Your task to perform on an android device: turn off location history Image 0: 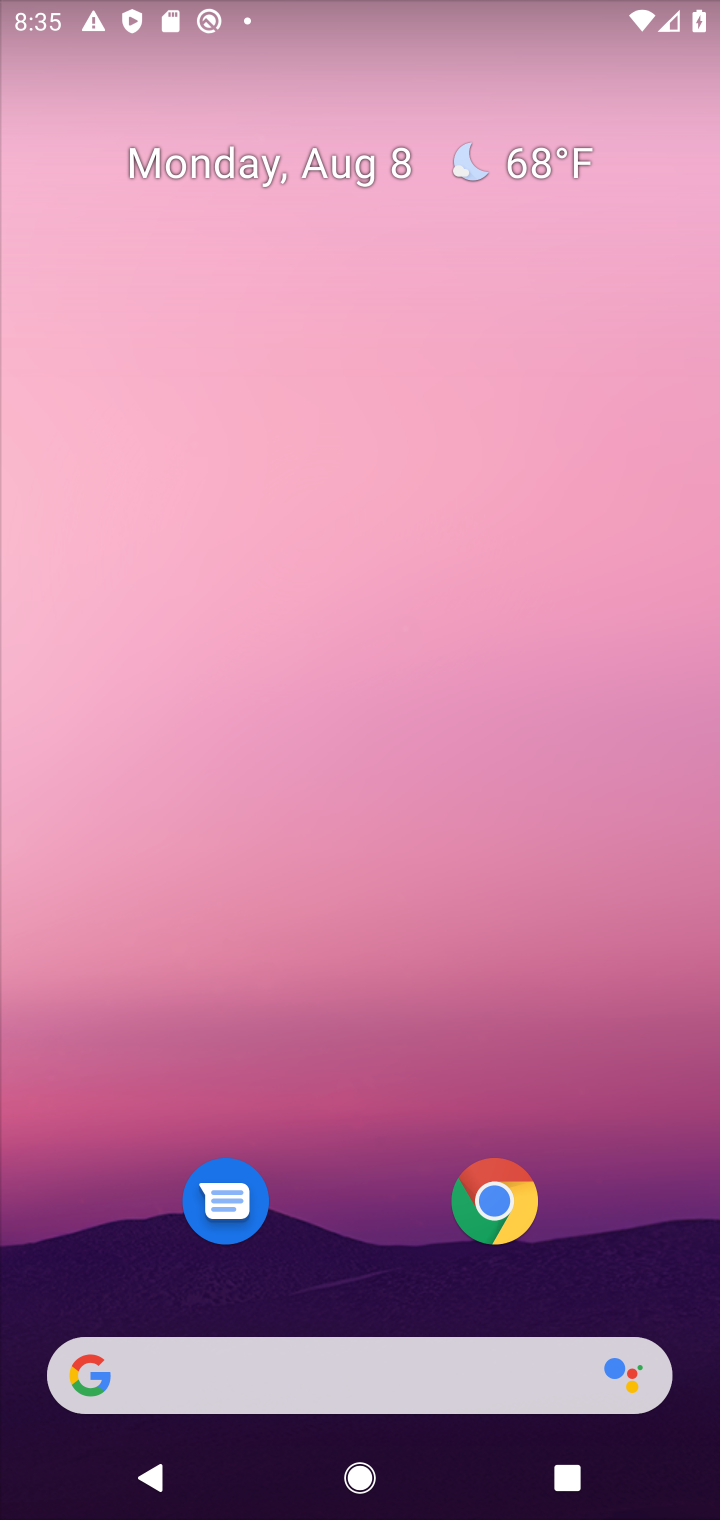
Step 0: press home button
Your task to perform on an android device: turn off location history Image 1: 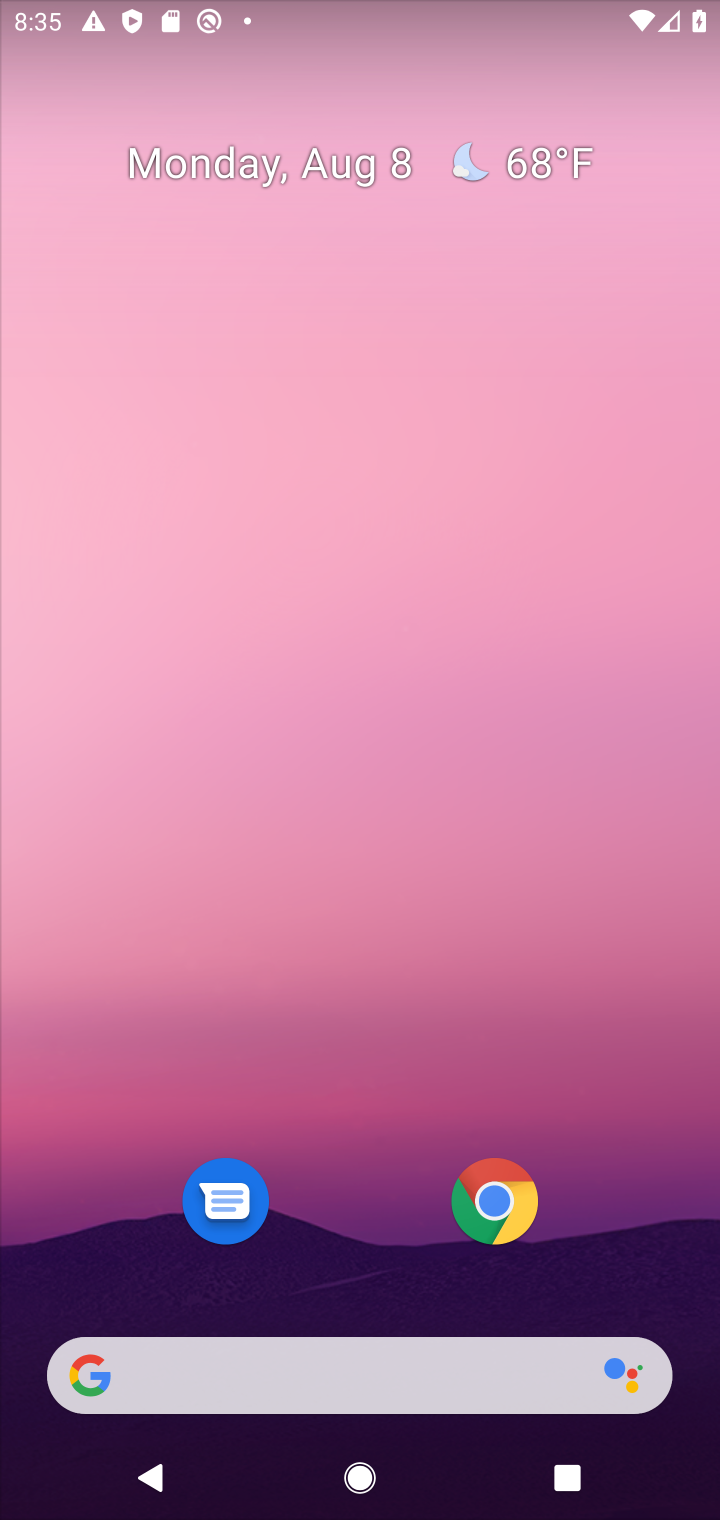
Step 1: drag from (606, 1237) to (610, 389)
Your task to perform on an android device: turn off location history Image 2: 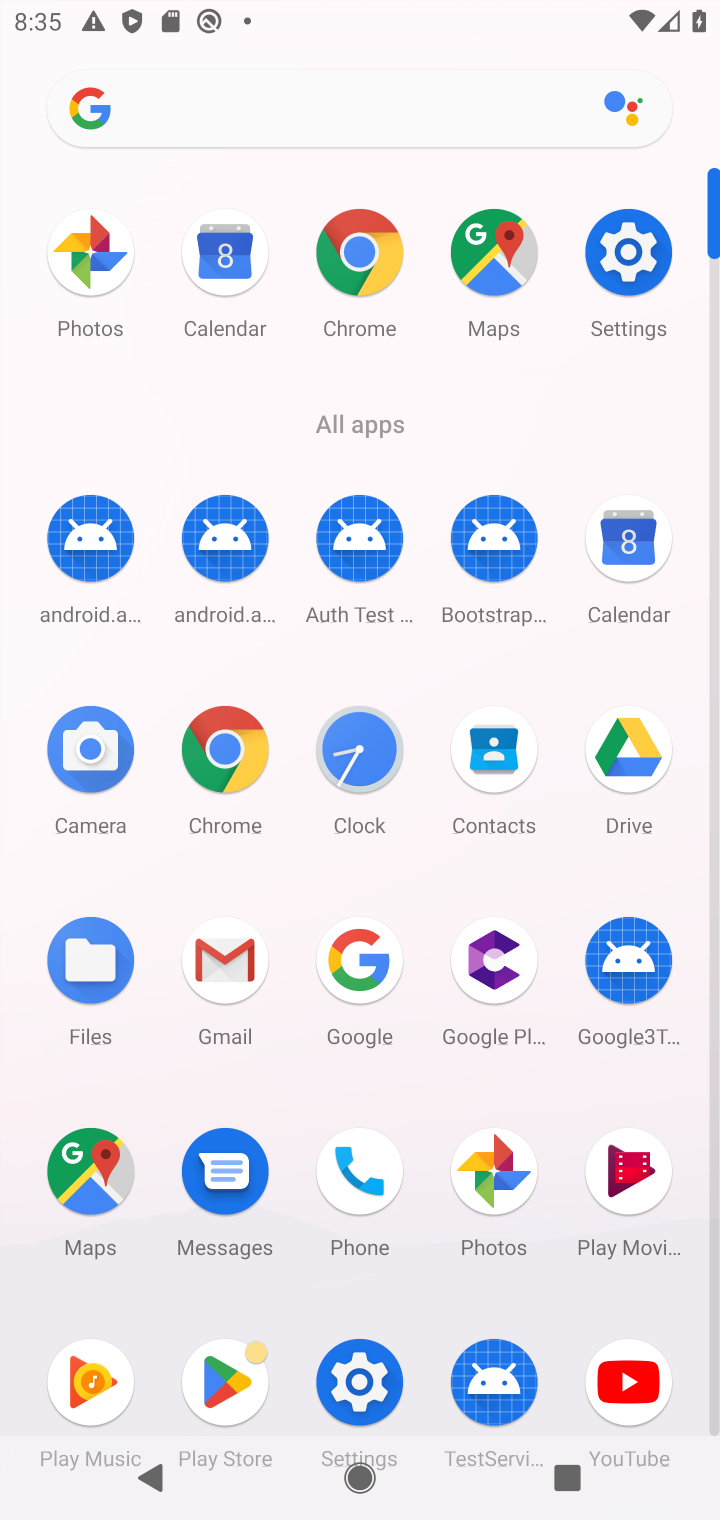
Step 2: click (625, 267)
Your task to perform on an android device: turn off location history Image 3: 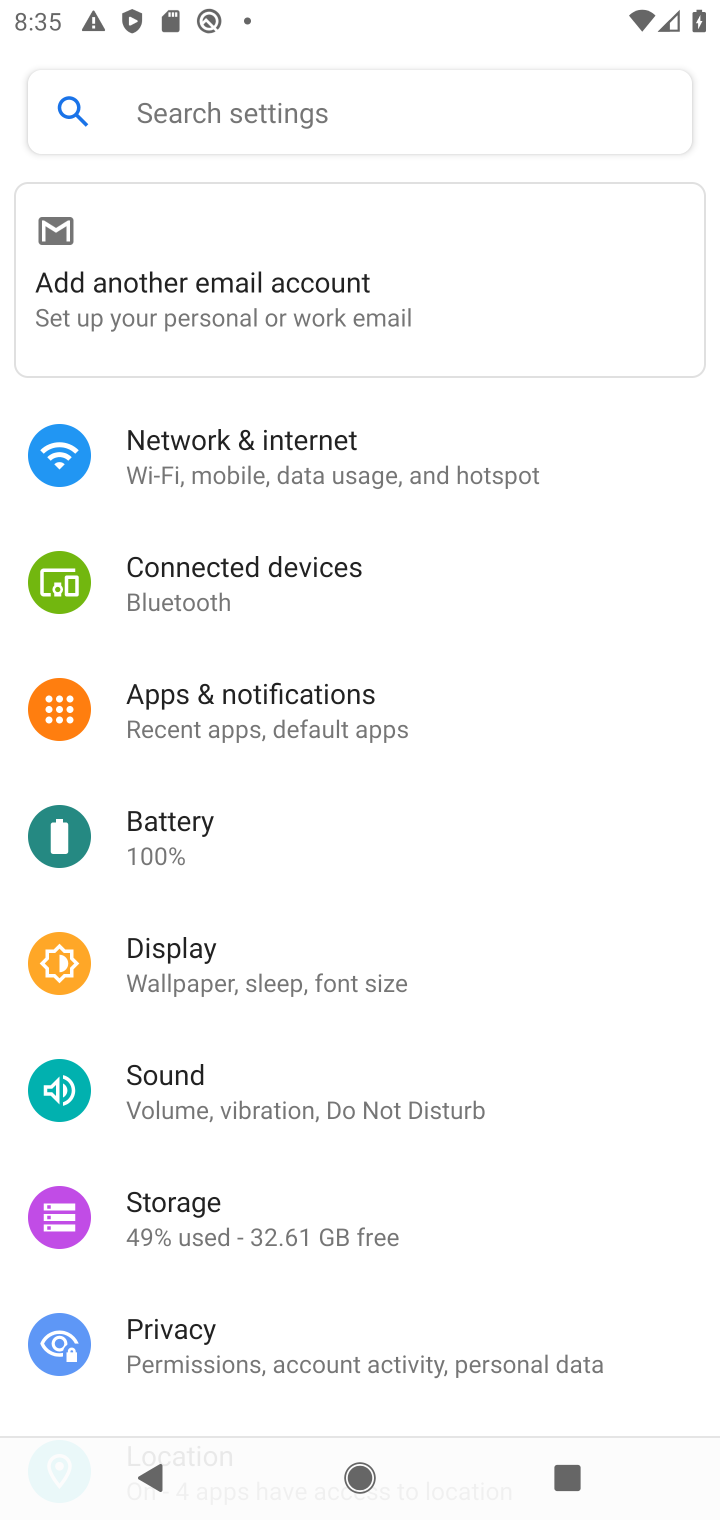
Step 3: drag from (599, 943) to (620, 667)
Your task to perform on an android device: turn off location history Image 4: 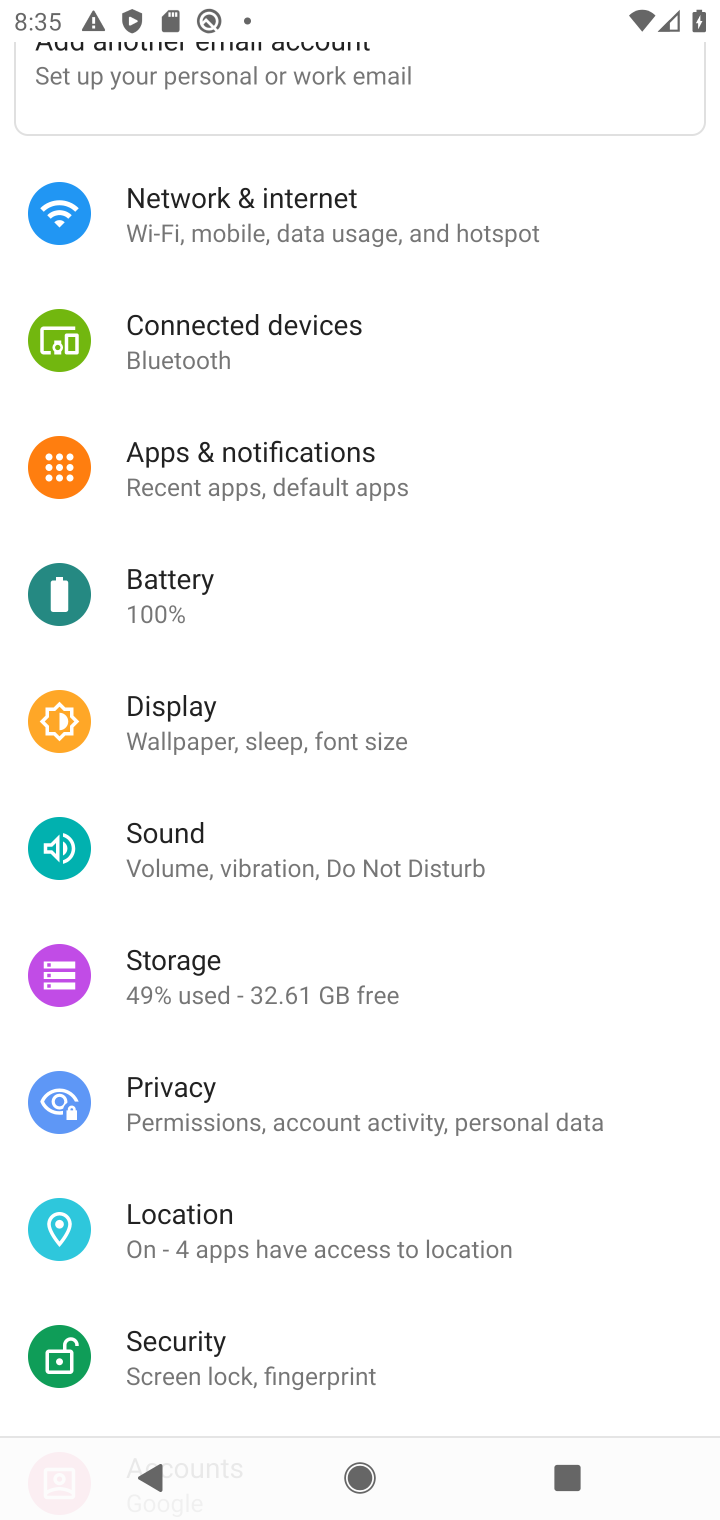
Step 4: drag from (608, 961) to (618, 610)
Your task to perform on an android device: turn off location history Image 5: 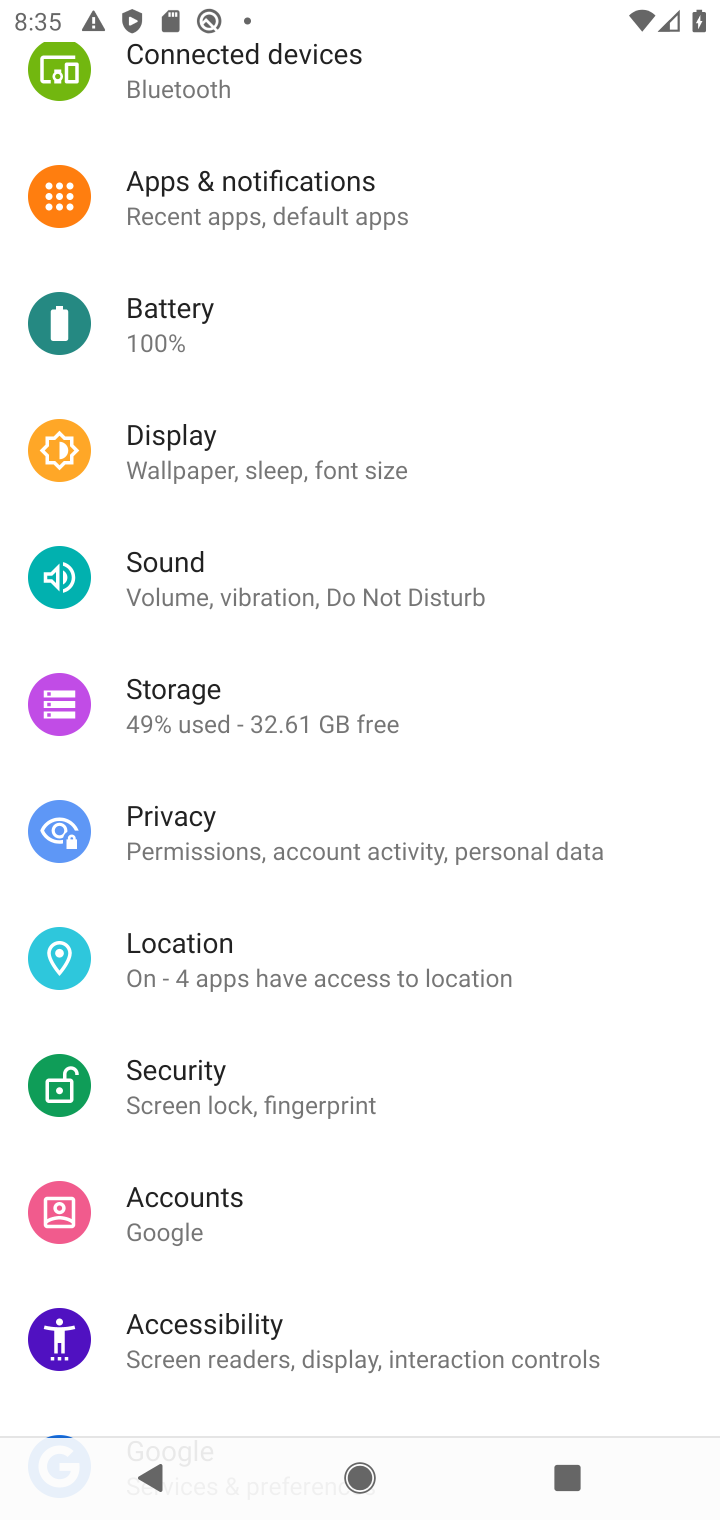
Step 5: drag from (603, 939) to (616, 589)
Your task to perform on an android device: turn off location history Image 6: 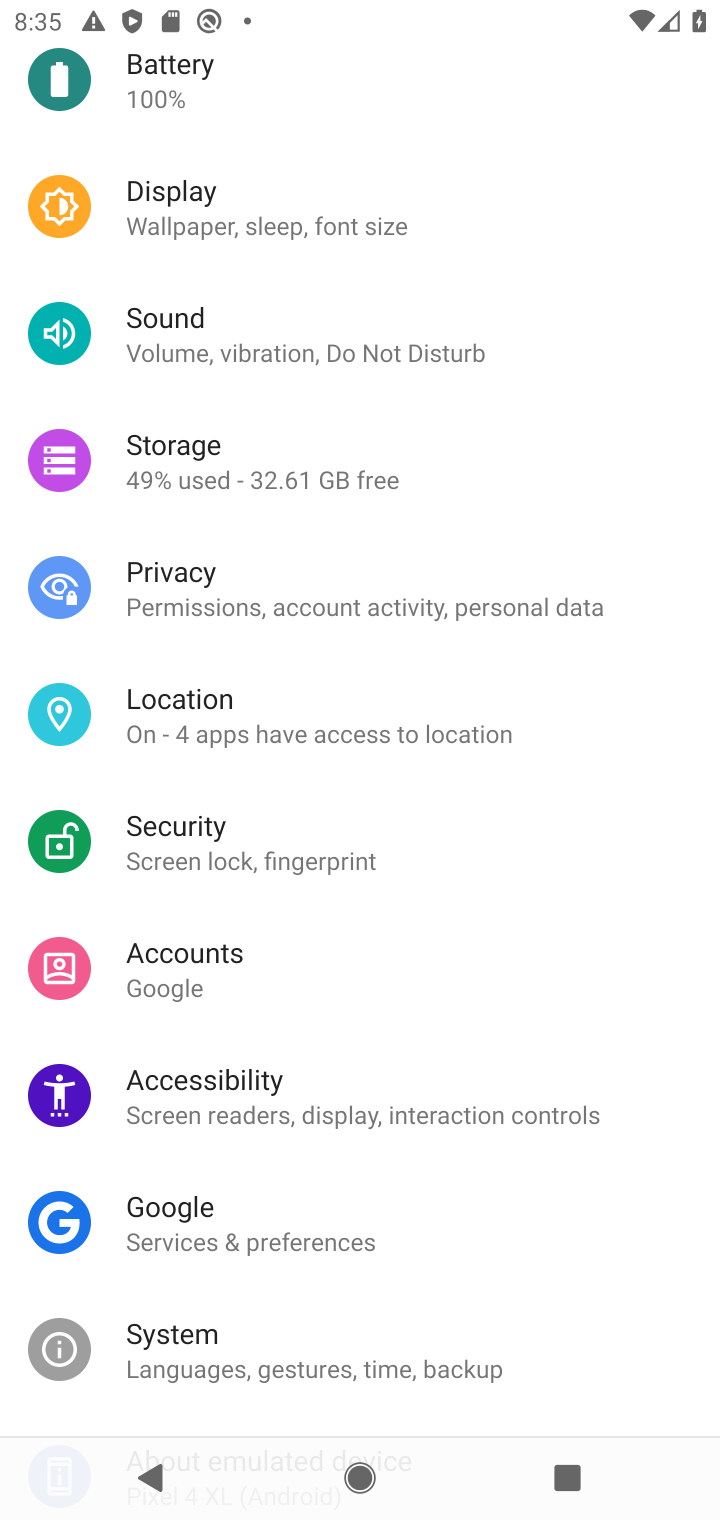
Step 6: drag from (590, 851) to (611, 581)
Your task to perform on an android device: turn off location history Image 7: 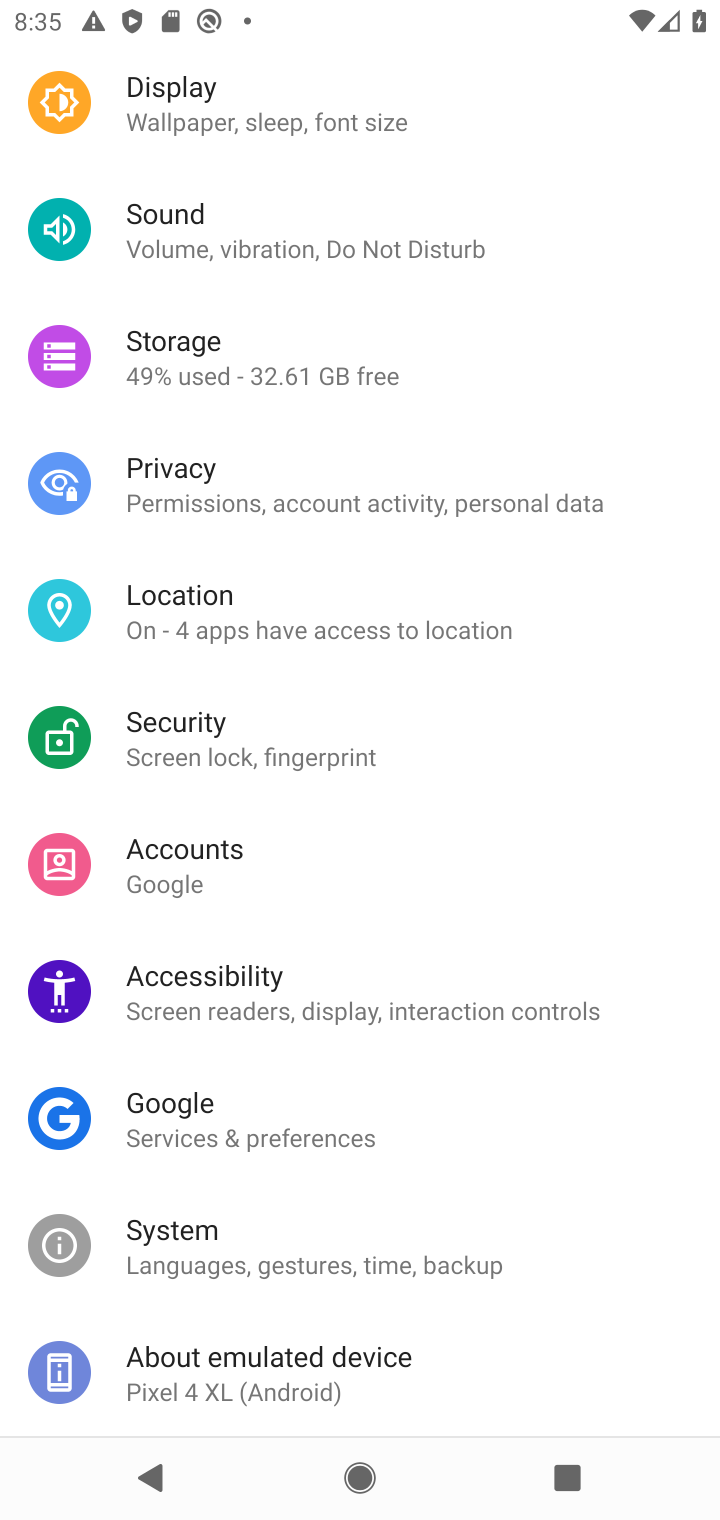
Step 7: drag from (646, 342) to (665, 626)
Your task to perform on an android device: turn off location history Image 8: 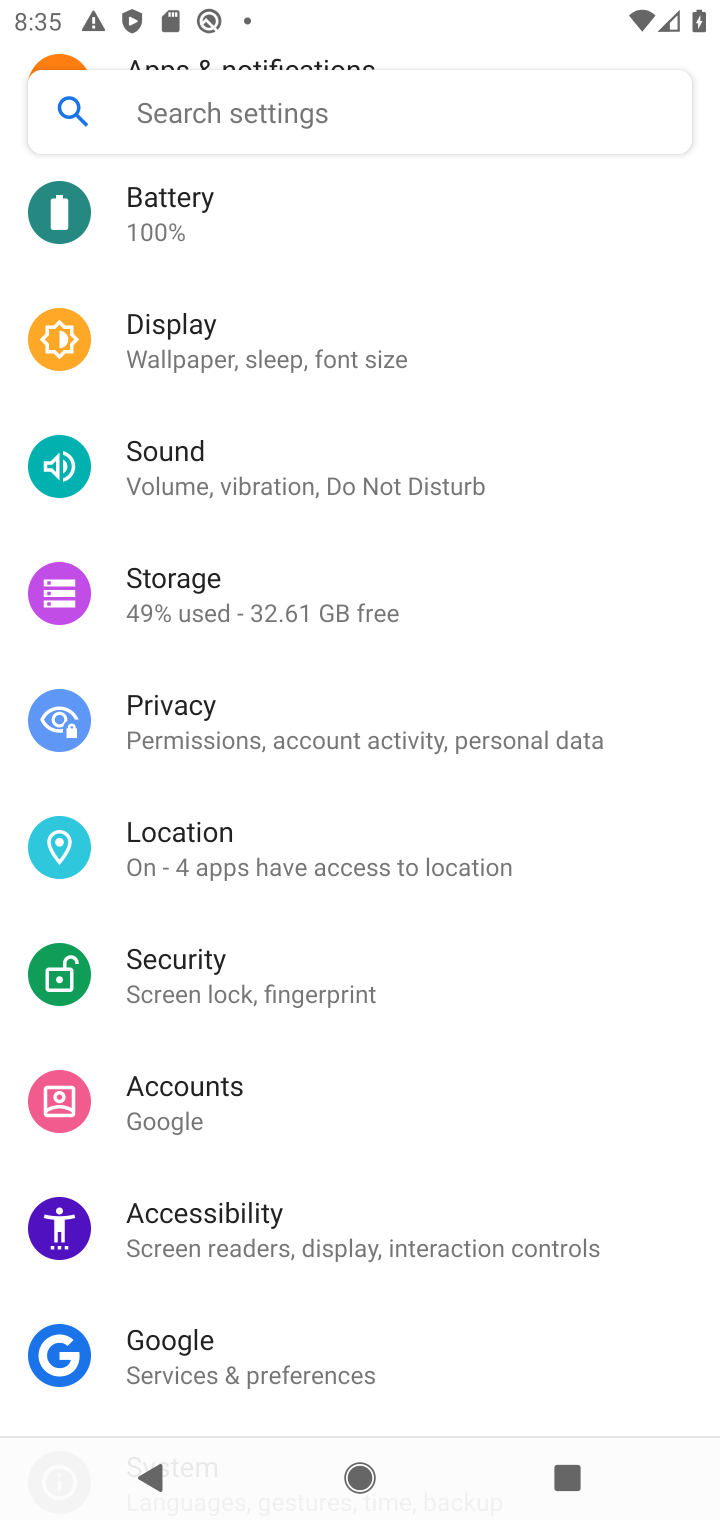
Step 8: drag from (654, 295) to (667, 616)
Your task to perform on an android device: turn off location history Image 9: 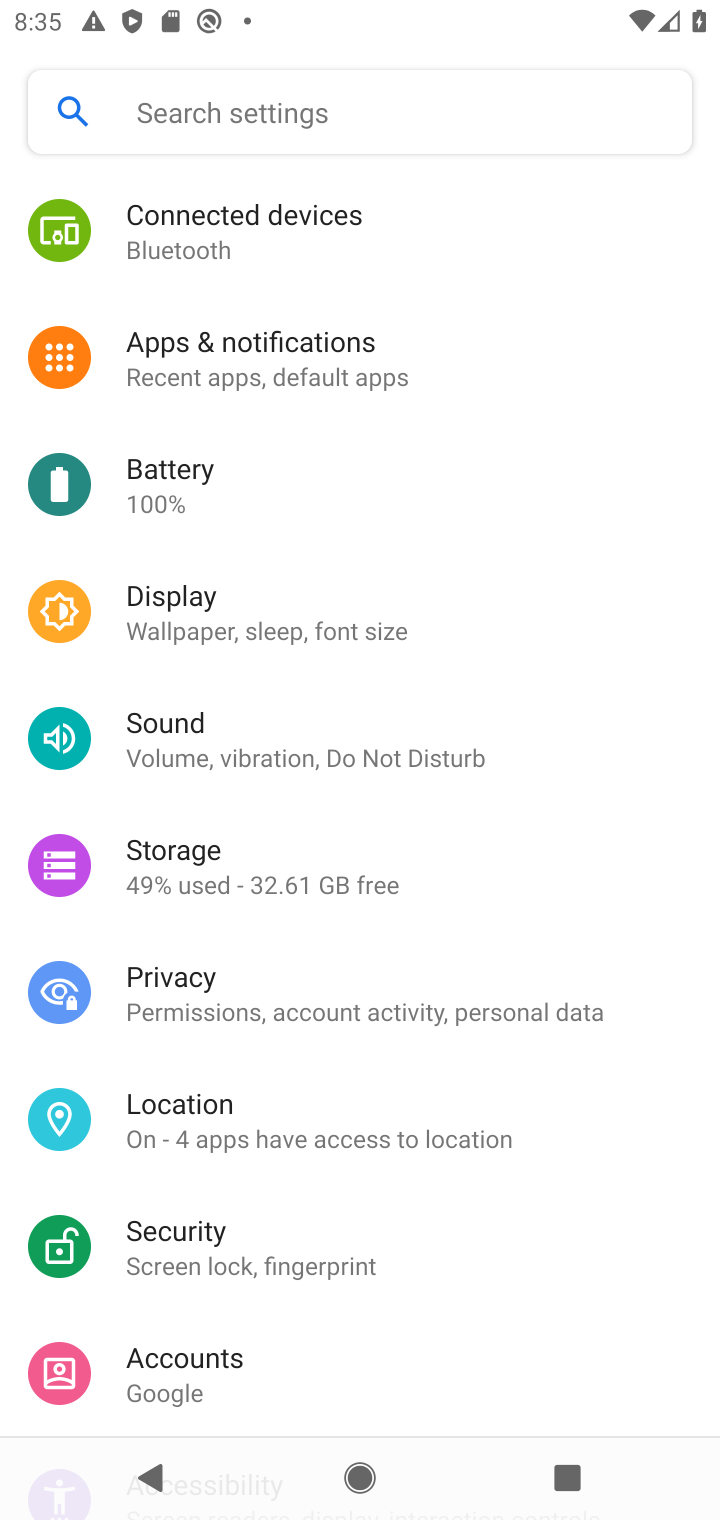
Step 9: click (451, 1125)
Your task to perform on an android device: turn off location history Image 10: 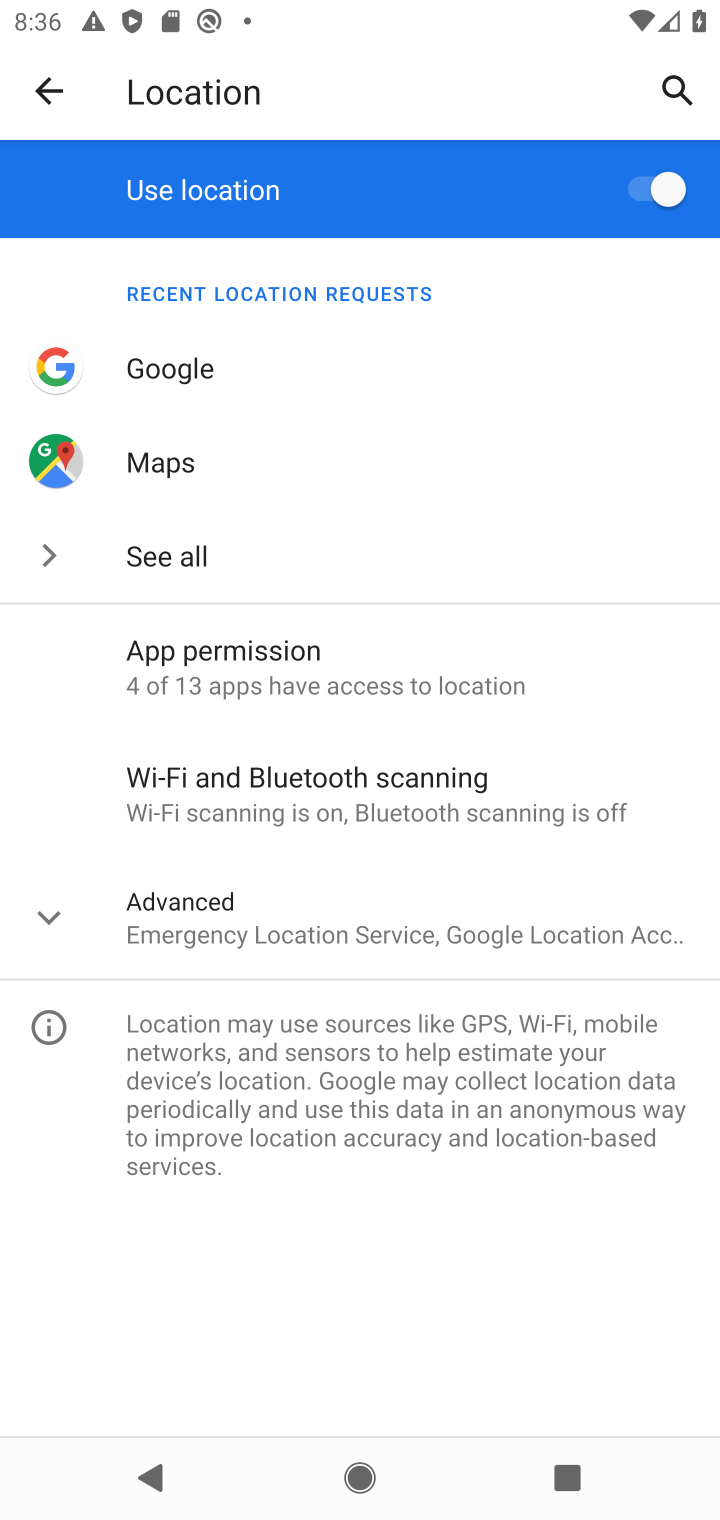
Step 10: click (374, 915)
Your task to perform on an android device: turn off location history Image 11: 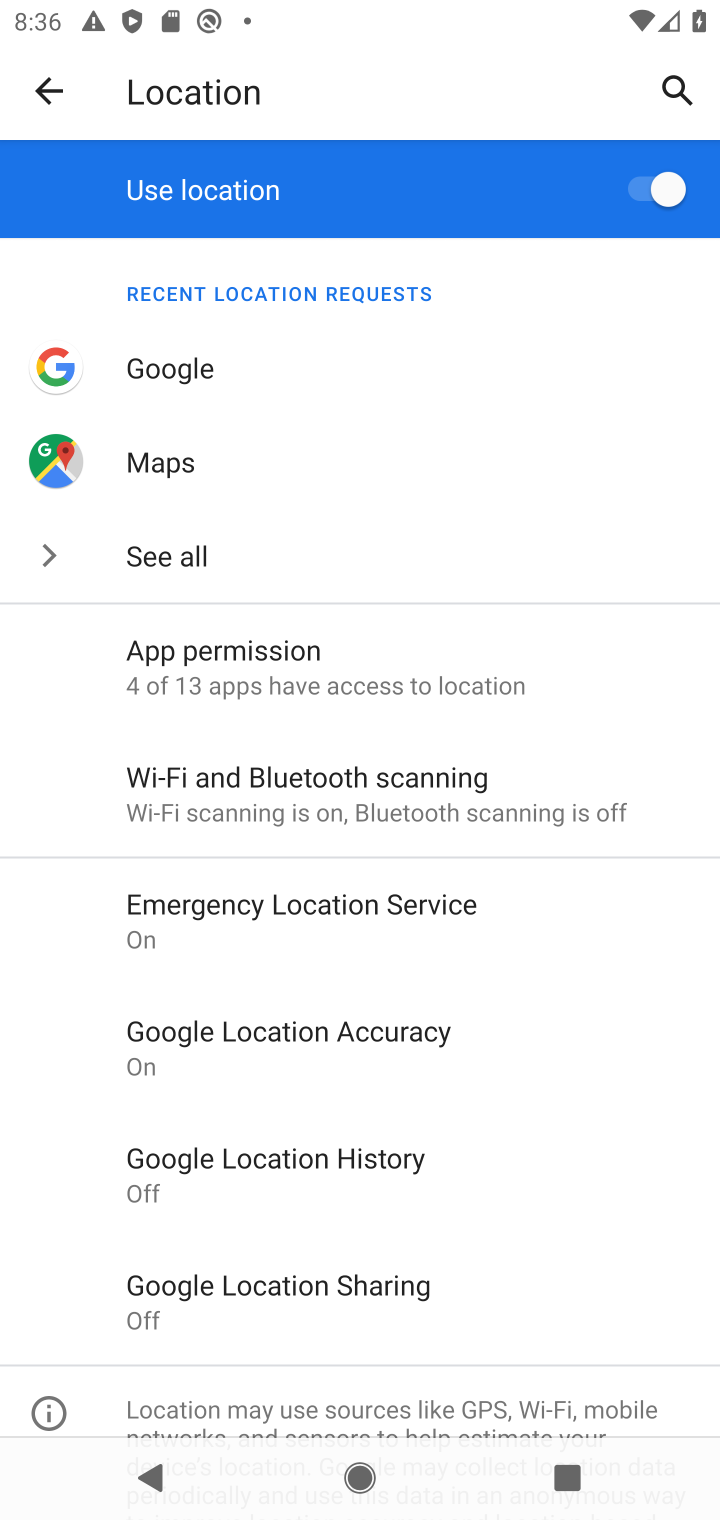
Step 11: task complete